Your task to perform on an android device: Go to notification settings Image 0: 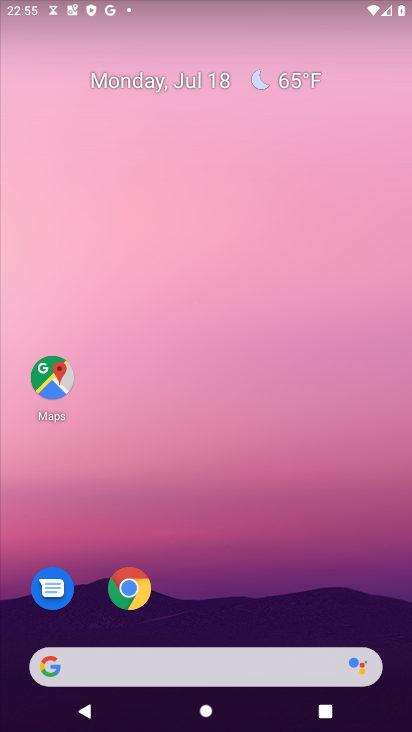
Step 0: drag from (188, 675) to (295, 104)
Your task to perform on an android device: Go to notification settings Image 1: 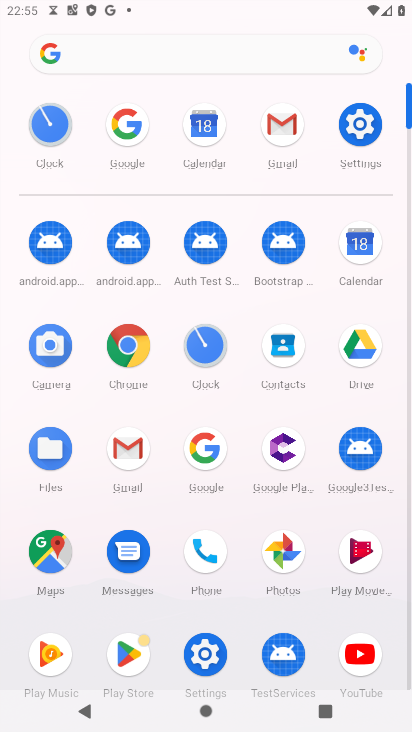
Step 1: click (205, 654)
Your task to perform on an android device: Go to notification settings Image 2: 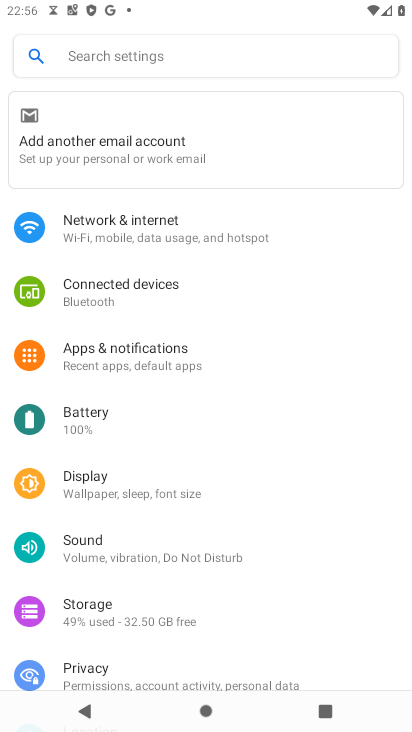
Step 2: drag from (123, 528) to (152, 410)
Your task to perform on an android device: Go to notification settings Image 3: 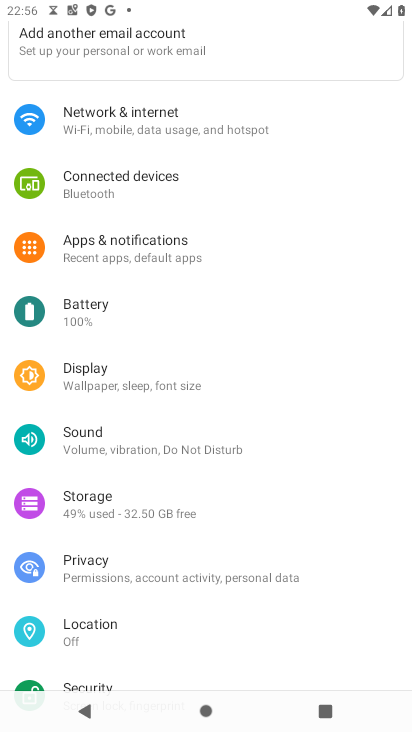
Step 3: click (157, 254)
Your task to perform on an android device: Go to notification settings Image 4: 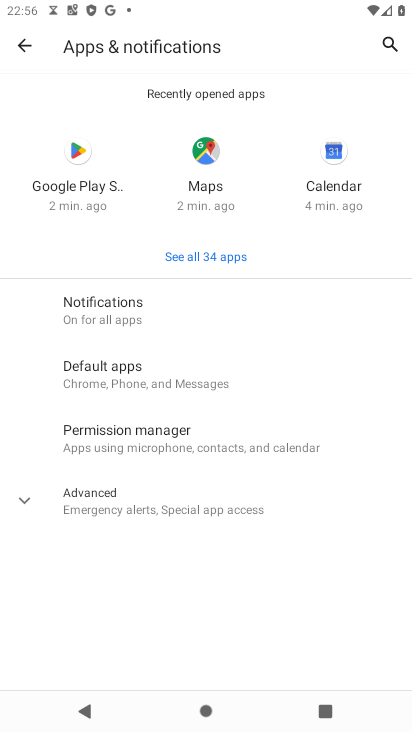
Step 4: click (117, 310)
Your task to perform on an android device: Go to notification settings Image 5: 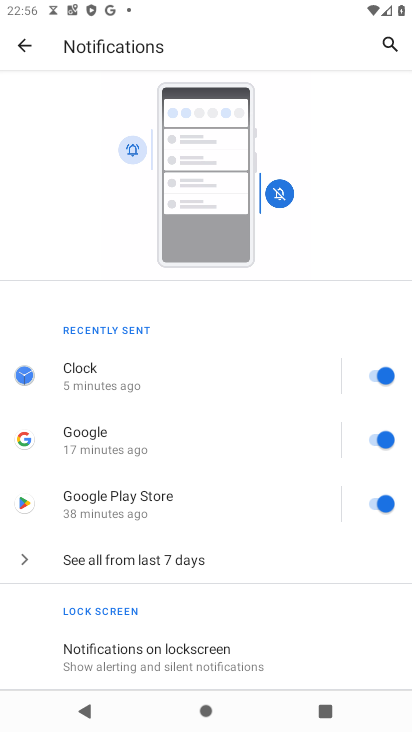
Step 5: task complete